Your task to perform on an android device: turn on sleep mode Image 0: 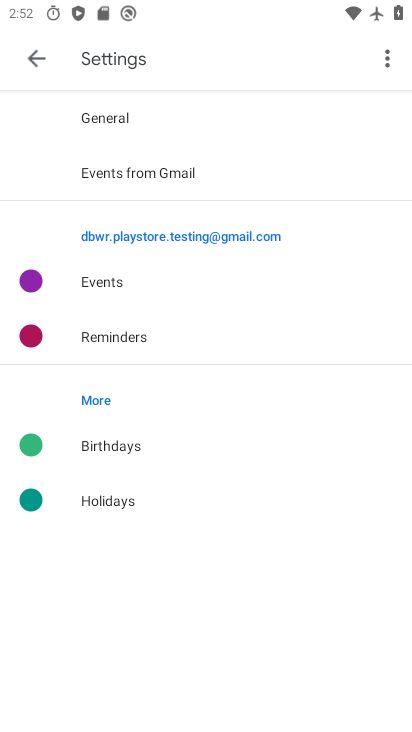
Step 0: press back button
Your task to perform on an android device: turn on sleep mode Image 1: 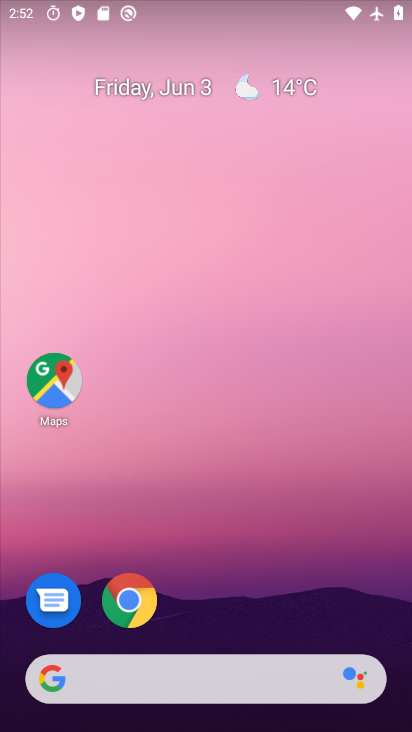
Step 1: drag from (258, 60) to (258, 6)
Your task to perform on an android device: turn on sleep mode Image 2: 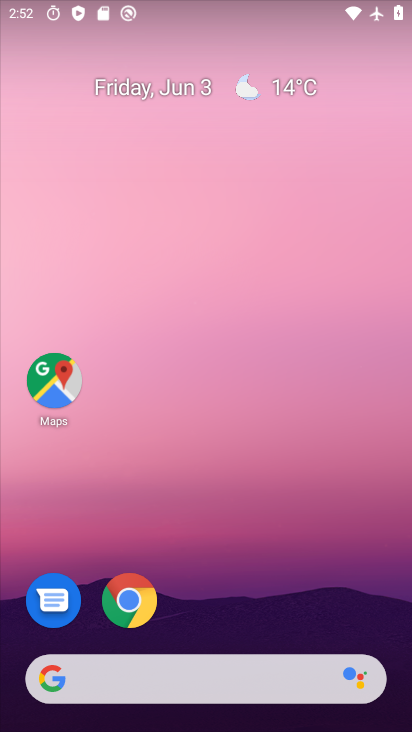
Step 2: drag from (291, 608) to (272, 45)
Your task to perform on an android device: turn on sleep mode Image 3: 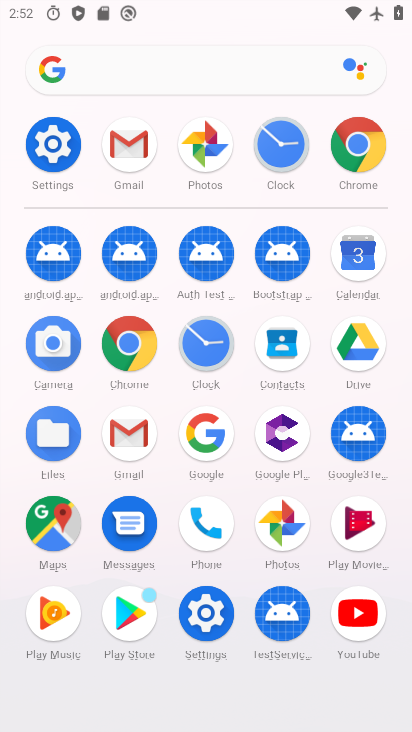
Step 3: click (206, 612)
Your task to perform on an android device: turn on sleep mode Image 4: 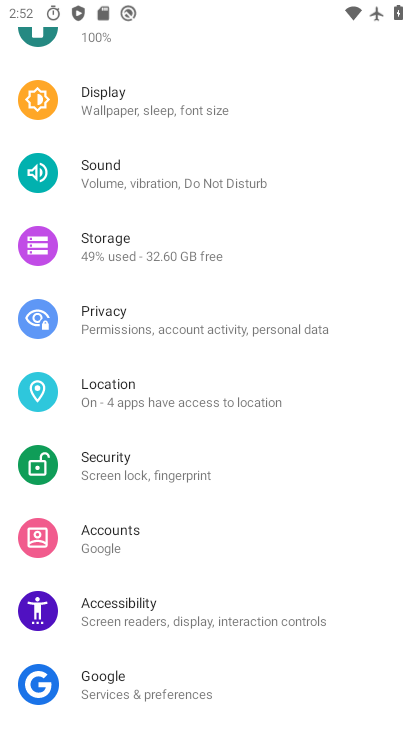
Step 4: drag from (234, 88) to (255, 467)
Your task to perform on an android device: turn on sleep mode Image 5: 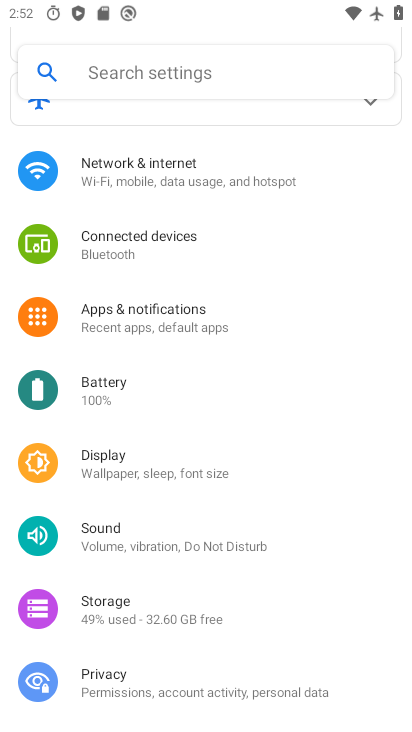
Step 5: drag from (263, 304) to (263, 587)
Your task to perform on an android device: turn on sleep mode Image 6: 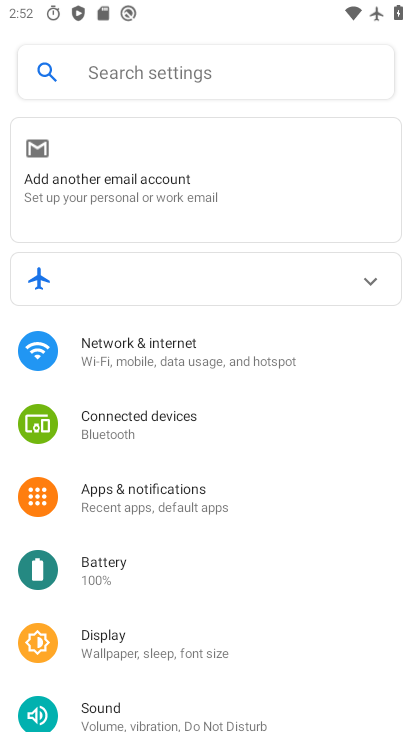
Step 6: drag from (248, 588) to (279, 344)
Your task to perform on an android device: turn on sleep mode Image 7: 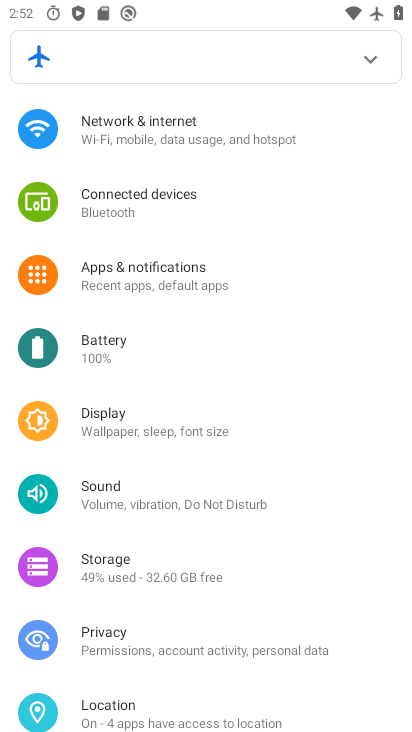
Step 7: click (182, 414)
Your task to perform on an android device: turn on sleep mode Image 8: 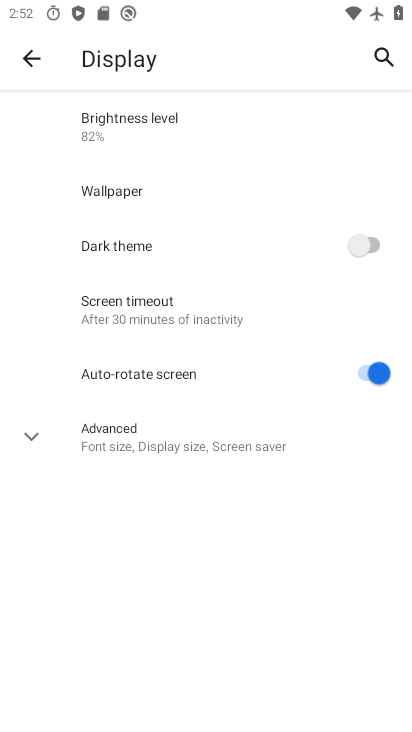
Step 8: click (24, 442)
Your task to perform on an android device: turn on sleep mode Image 9: 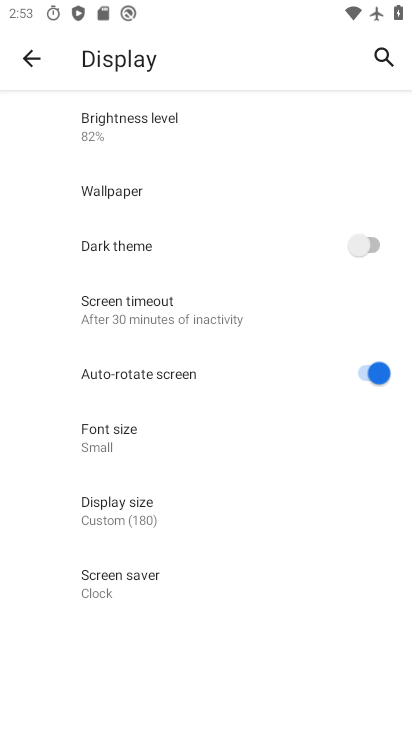
Step 9: task complete